Your task to perform on an android device: Open the map Image 0: 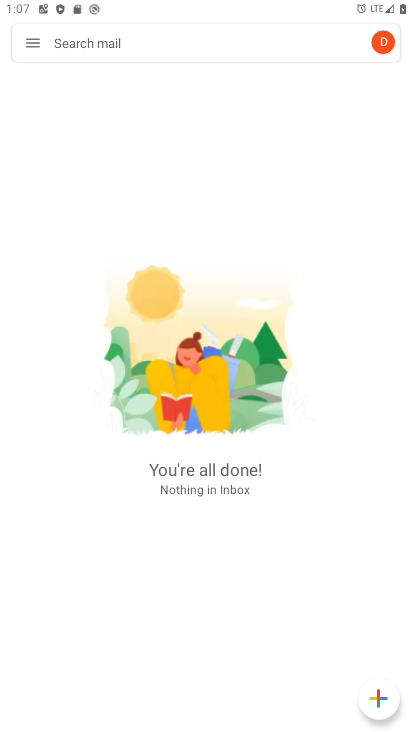
Step 0: press home button
Your task to perform on an android device: Open the map Image 1: 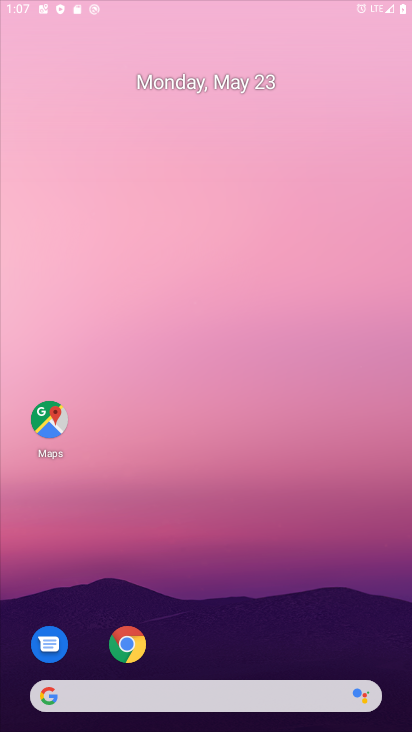
Step 1: drag from (334, 631) to (281, 181)
Your task to perform on an android device: Open the map Image 2: 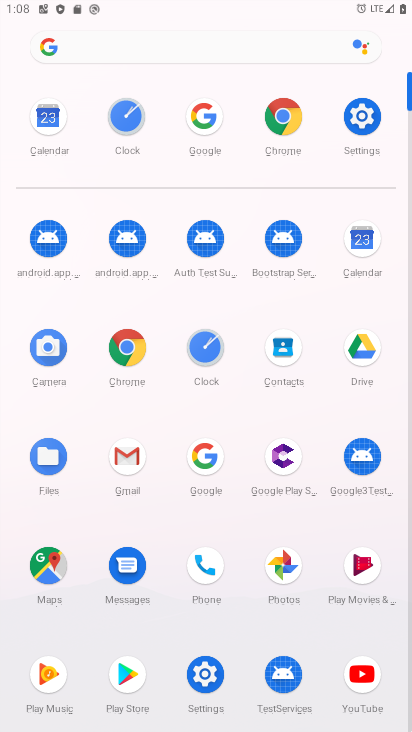
Step 2: click (55, 565)
Your task to perform on an android device: Open the map Image 3: 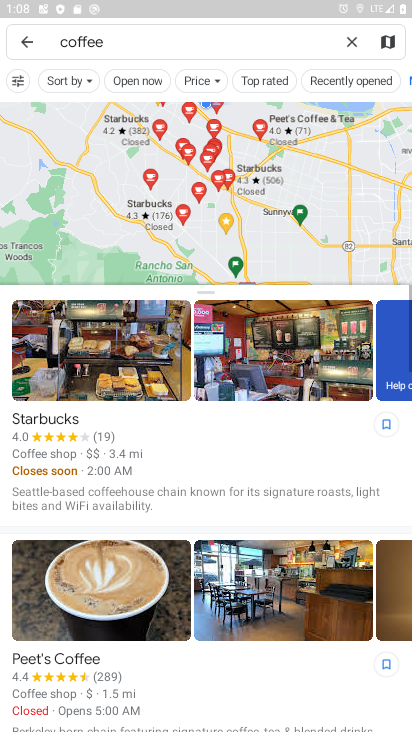
Step 3: click (355, 47)
Your task to perform on an android device: Open the map Image 4: 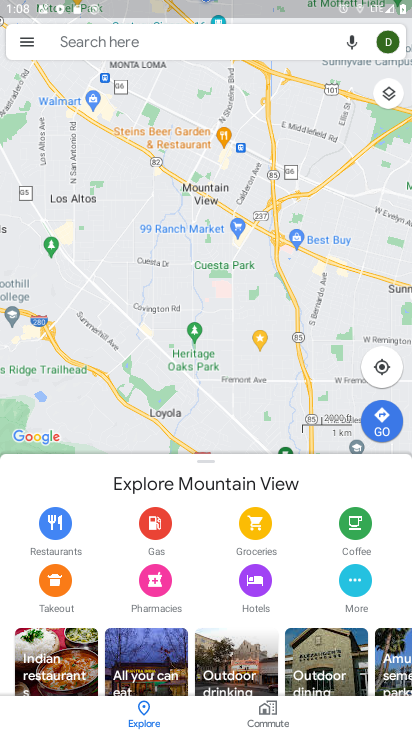
Step 4: task complete